Your task to perform on an android device: turn off javascript in the chrome app Image 0: 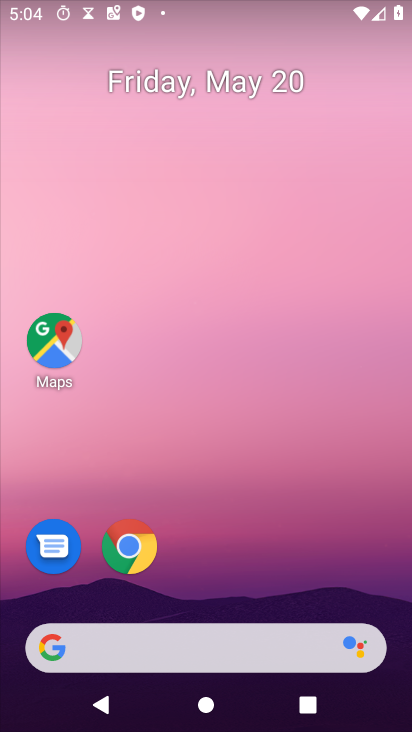
Step 0: click (126, 543)
Your task to perform on an android device: turn off javascript in the chrome app Image 1: 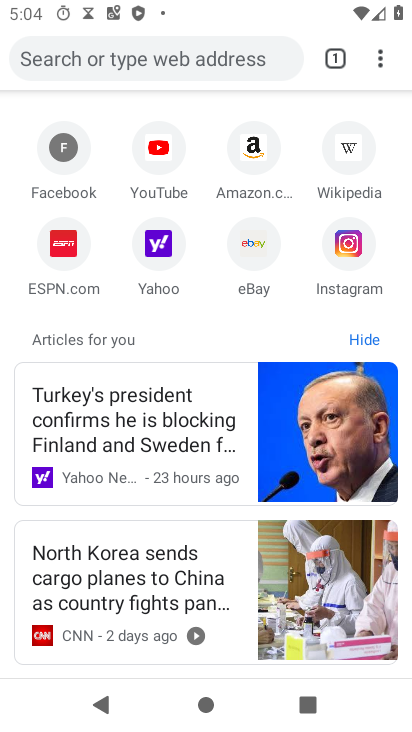
Step 1: click (381, 60)
Your task to perform on an android device: turn off javascript in the chrome app Image 2: 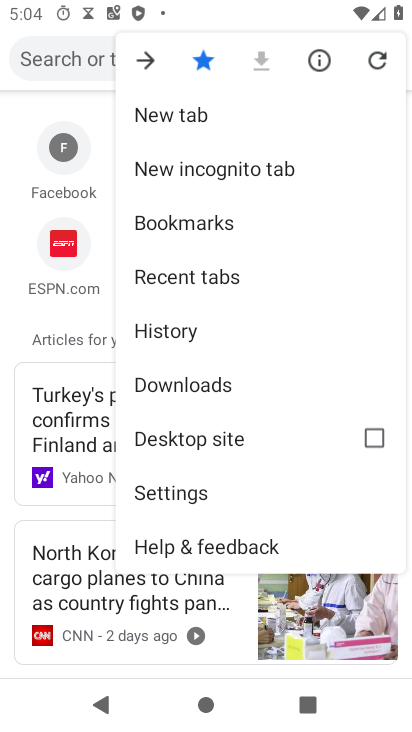
Step 2: click (178, 490)
Your task to perform on an android device: turn off javascript in the chrome app Image 3: 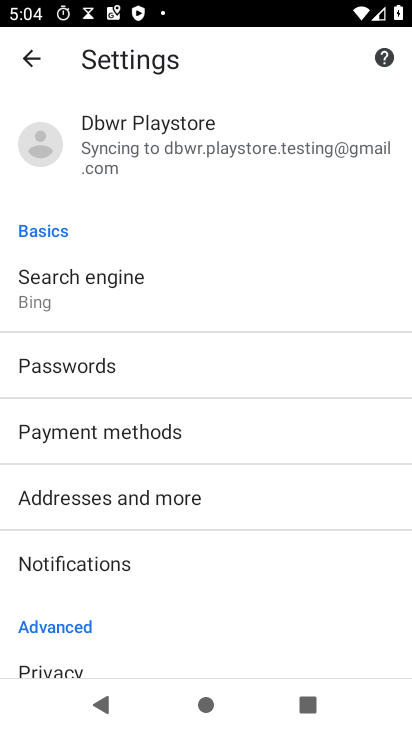
Step 3: drag from (142, 562) to (228, 443)
Your task to perform on an android device: turn off javascript in the chrome app Image 4: 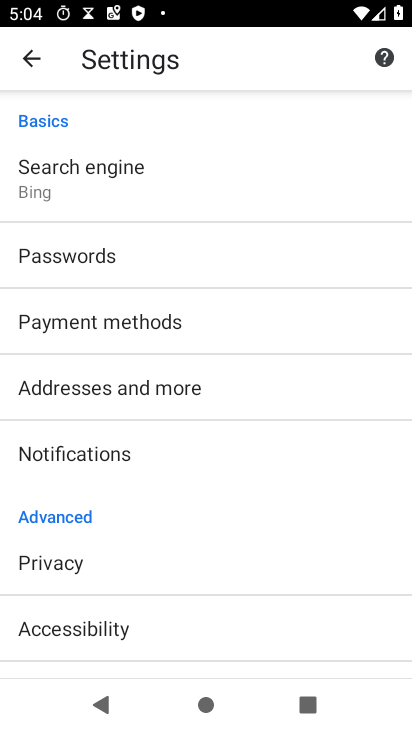
Step 4: drag from (125, 599) to (220, 493)
Your task to perform on an android device: turn off javascript in the chrome app Image 5: 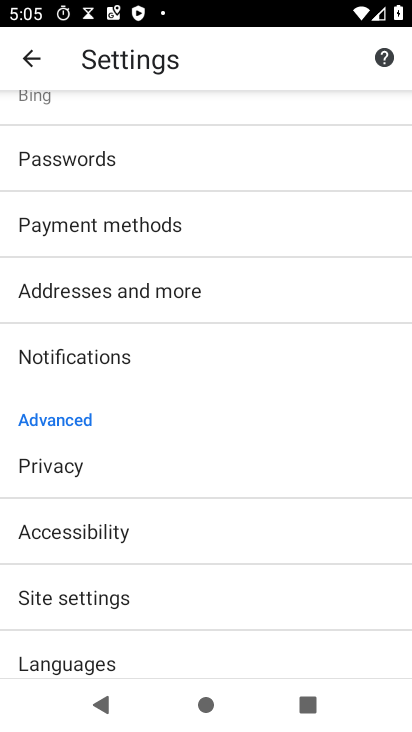
Step 5: drag from (151, 579) to (226, 485)
Your task to perform on an android device: turn off javascript in the chrome app Image 6: 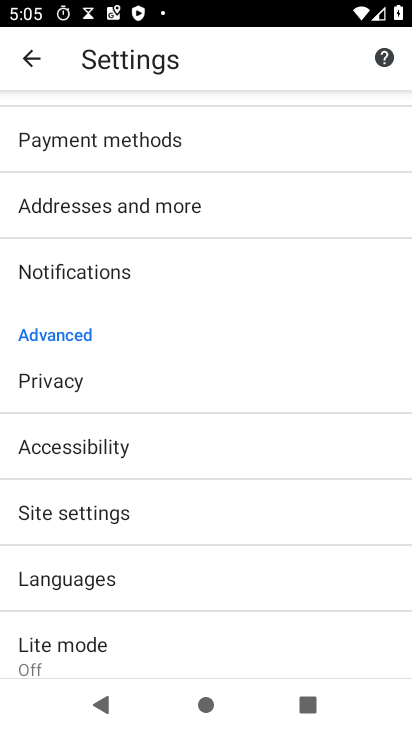
Step 6: click (98, 512)
Your task to perform on an android device: turn off javascript in the chrome app Image 7: 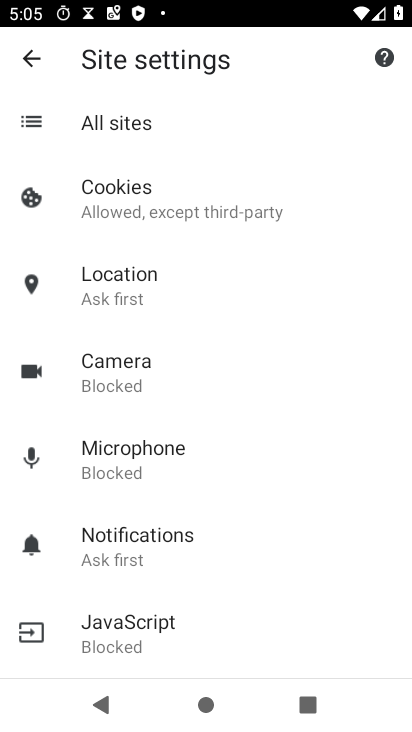
Step 7: drag from (179, 570) to (236, 485)
Your task to perform on an android device: turn off javascript in the chrome app Image 8: 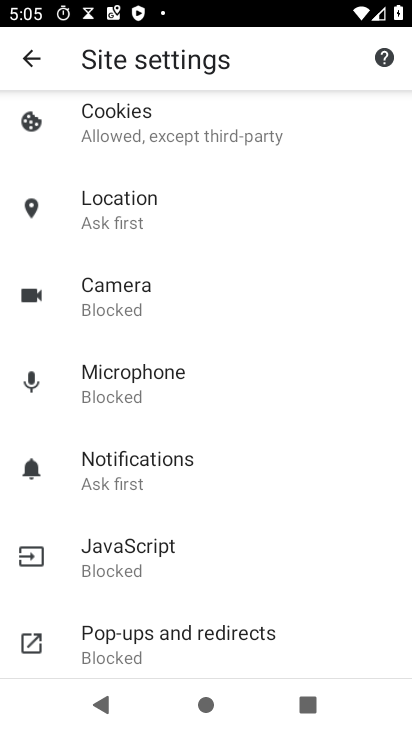
Step 8: click (159, 560)
Your task to perform on an android device: turn off javascript in the chrome app Image 9: 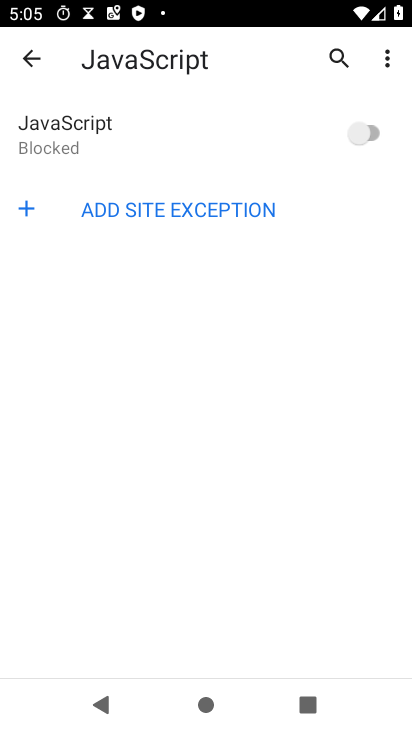
Step 9: task complete